Your task to perform on an android device: Open Youtube and go to the subscriptions tab Image 0: 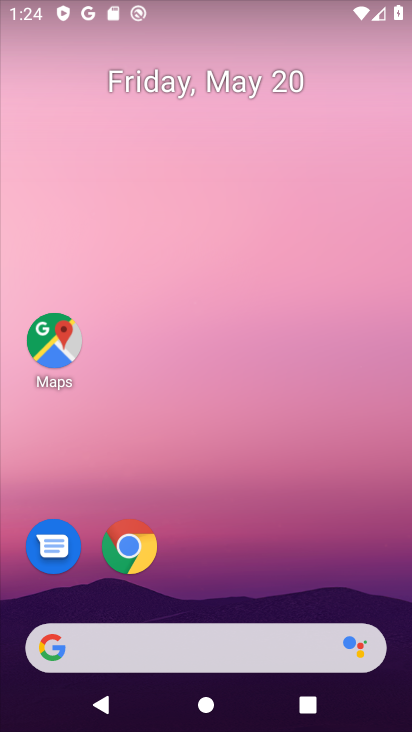
Step 0: drag from (190, 651) to (211, 81)
Your task to perform on an android device: Open Youtube and go to the subscriptions tab Image 1: 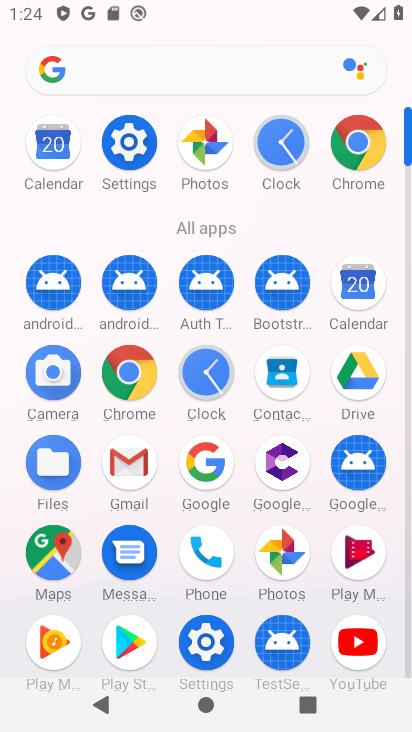
Step 1: click (349, 651)
Your task to perform on an android device: Open Youtube and go to the subscriptions tab Image 2: 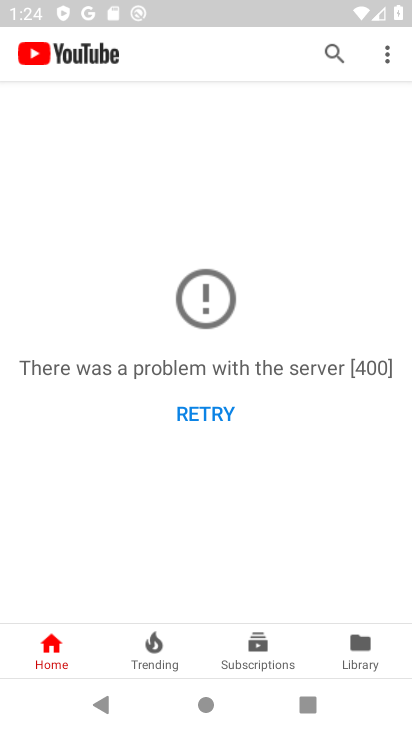
Step 2: click (286, 664)
Your task to perform on an android device: Open Youtube and go to the subscriptions tab Image 3: 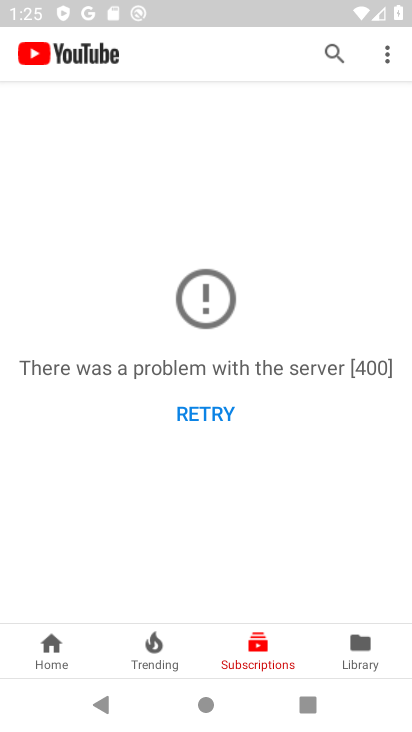
Step 3: task complete